Your task to perform on an android device: View the shopping cart on newegg. Add logitech g pro to the cart on newegg, then select checkout. Image 0: 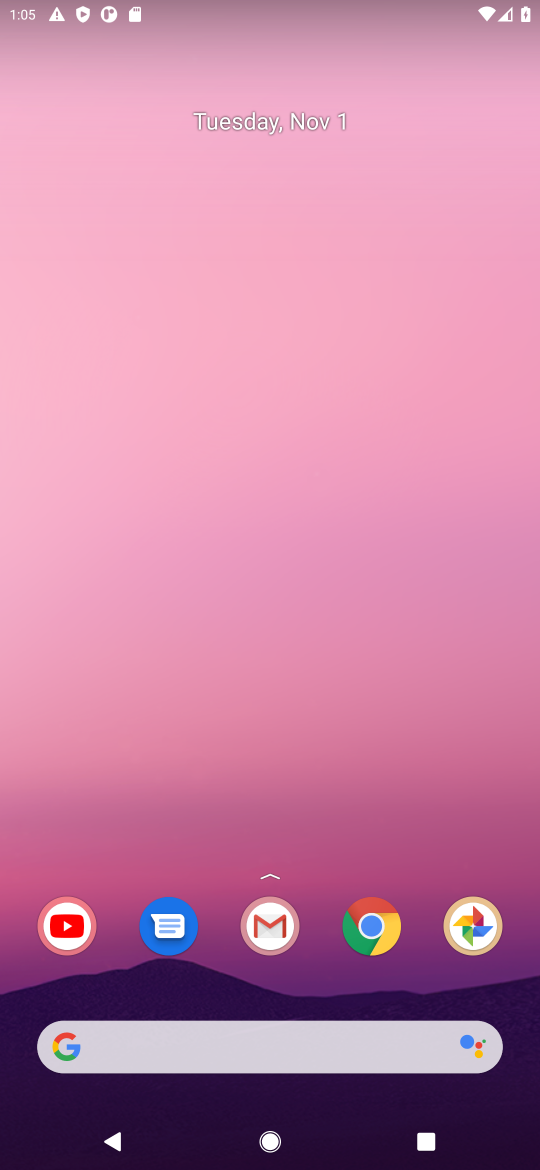
Step 0: click (383, 940)
Your task to perform on an android device: View the shopping cart on newegg. Add logitech g pro to the cart on newegg, then select checkout. Image 1: 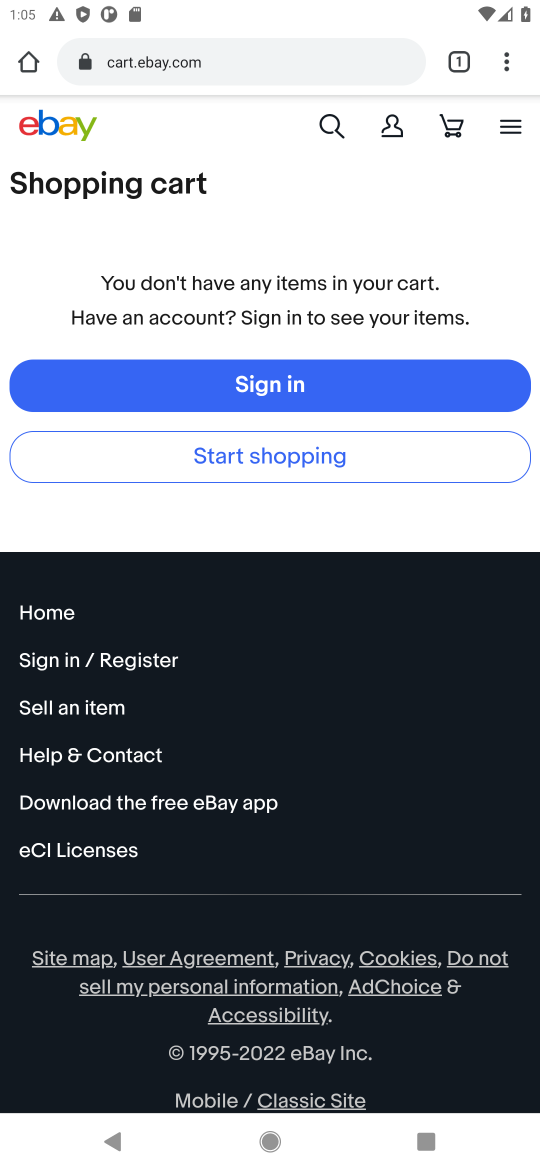
Step 1: click (231, 79)
Your task to perform on an android device: View the shopping cart on newegg. Add logitech g pro to the cart on newegg, then select checkout. Image 2: 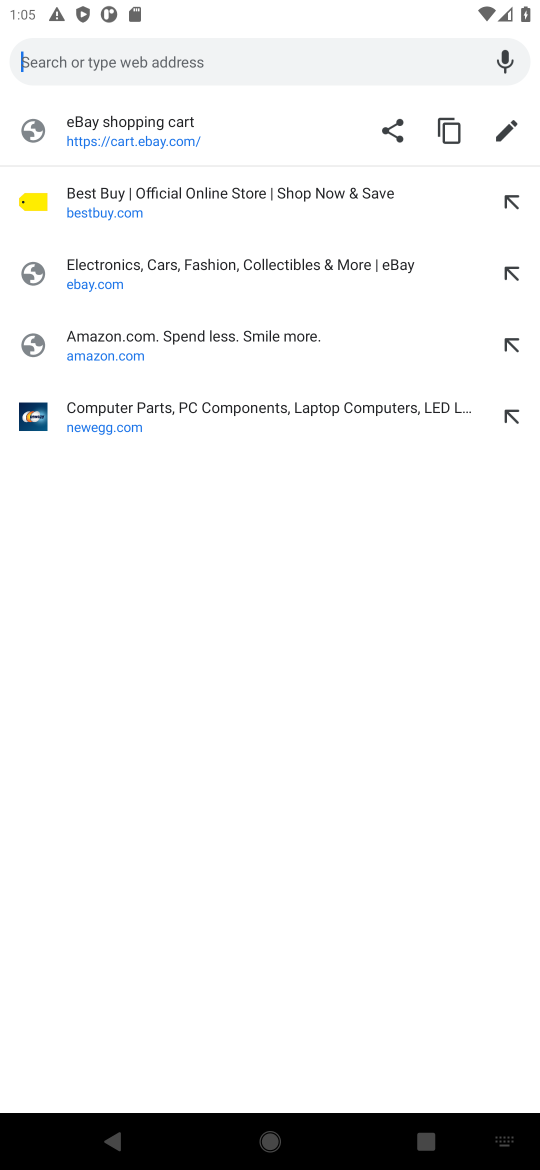
Step 2: type "newegg"
Your task to perform on an android device: View the shopping cart on newegg. Add logitech g pro to the cart on newegg, then select checkout. Image 3: 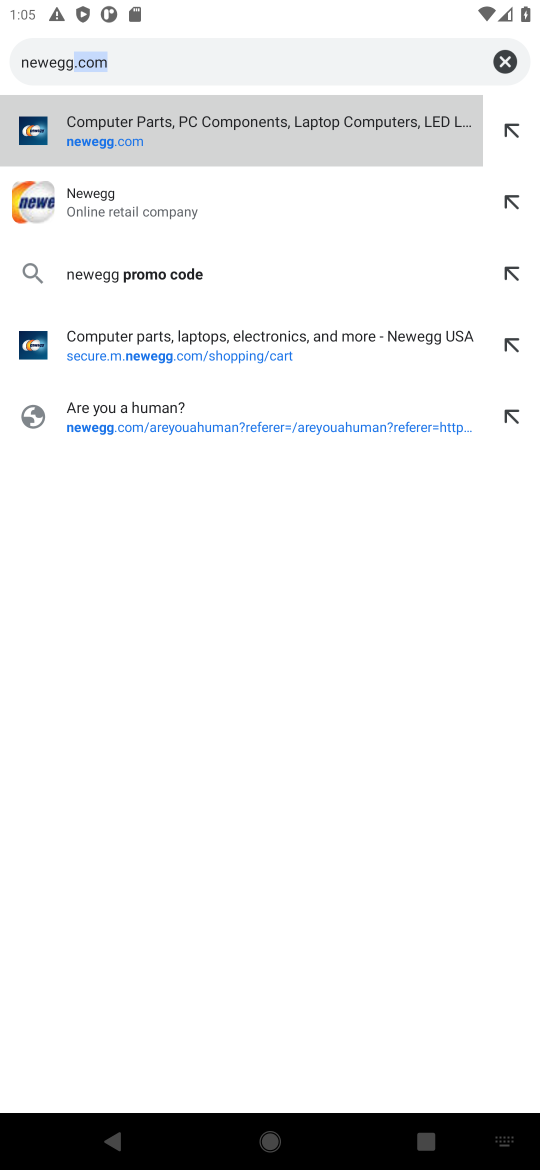
Step 3: press enter
Your task to perform on an android device: View the shopping cart on newegg. Add logitech g pro to the cart on newegg, then select checkout. Image 4: 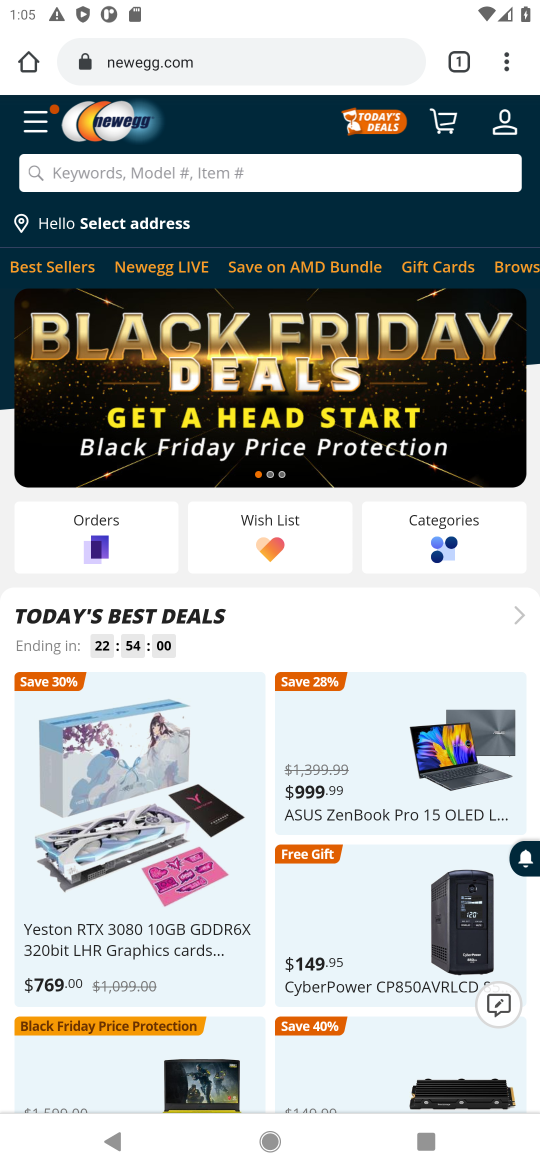
Step 4: click (448, 125)
Your task to perform on an android device: View the shopping cart on newegg. Add logitech g pro to the cart on newegg, then select checkout. Image 5: 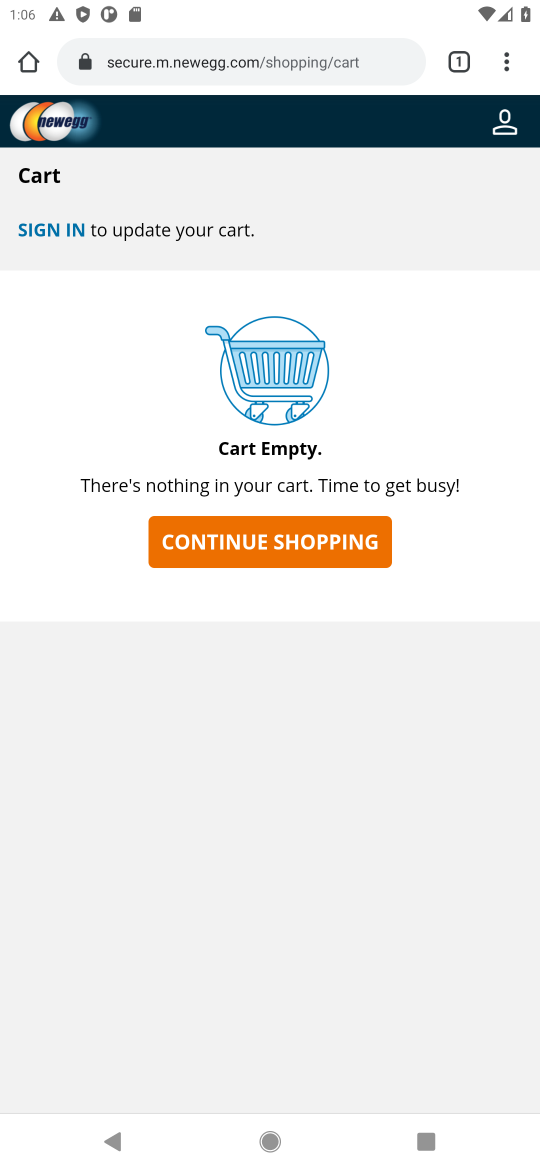
Step 5: click (288, 545)
Your task to perform on an android device: View the shopping cart on newegg. Add logitech g pro to the cart on newegg, then select checkout. Image 6: 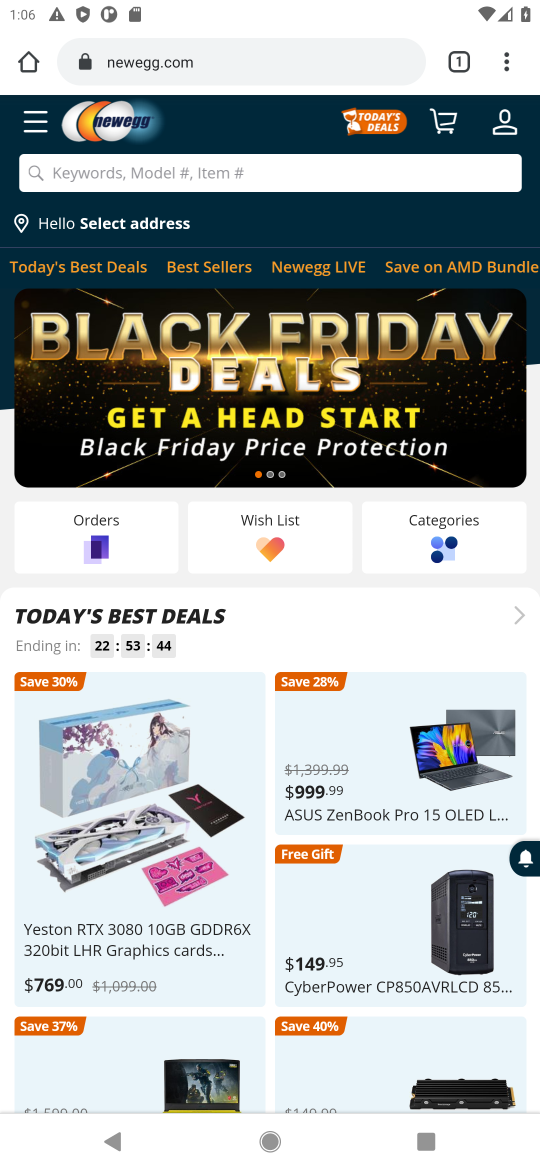
Step 6: click (344, 183)
Your task to perform on an android device: View the shopping cart on newegg. Add logitech g pro to the cart on newegg, then select checkout. Image 7: 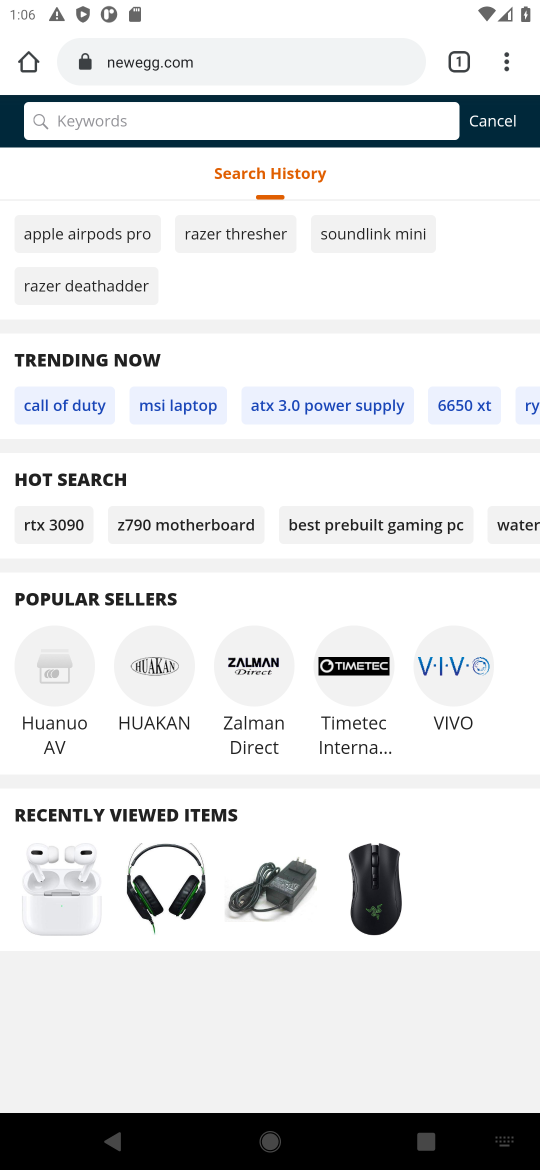
Step 7: type "logitech g pro"
Your task to perform on an android device: View the shopping cart on newegg. Add logitech g pro to the cart on newegg, then select checkout. Image 8: 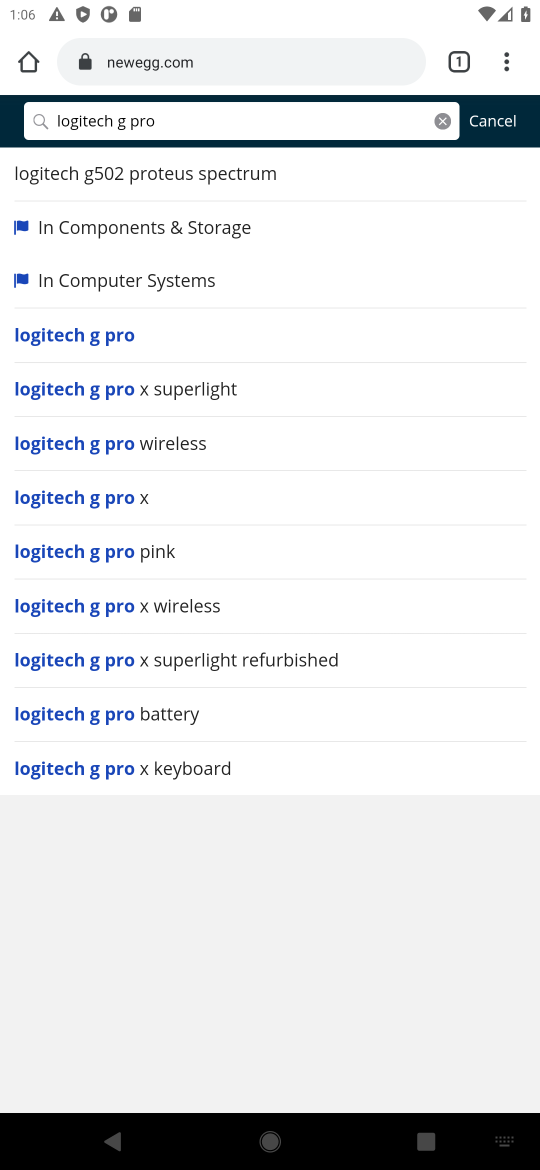
Step 8: press enter
Your task to perform on an android device: View the shopping cart on newegg. Add logitech g pro to the cart on newegg, then select checkout. Image 9: 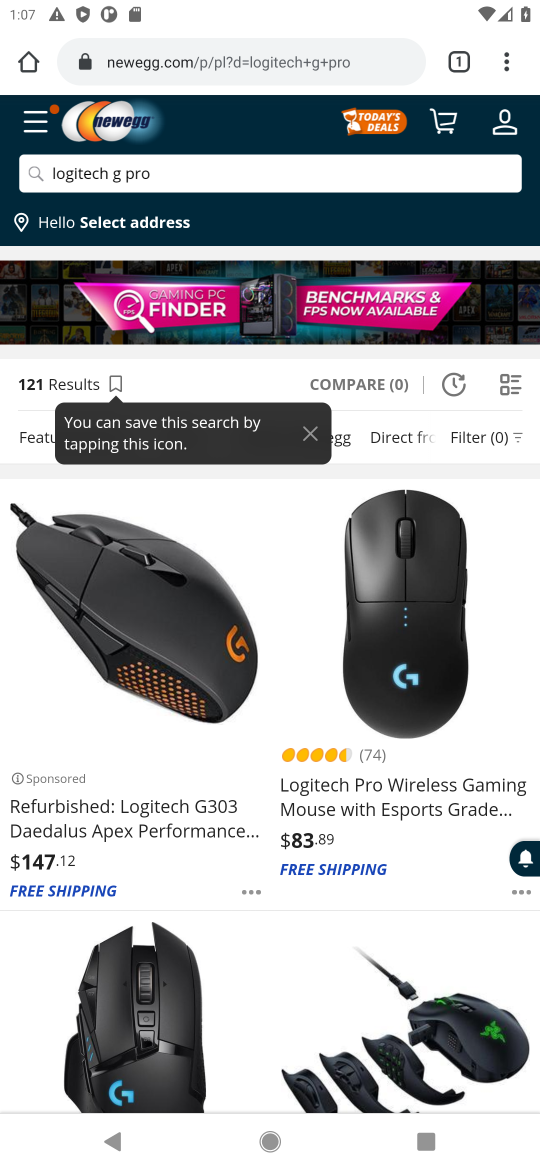
Step 9: drag from (273, 940) to (321, 695)
Your task to perform on an android device: View the shopping cart on newegg. Add logitech g pro to the cart on newegg, then select checkout. Image 10: 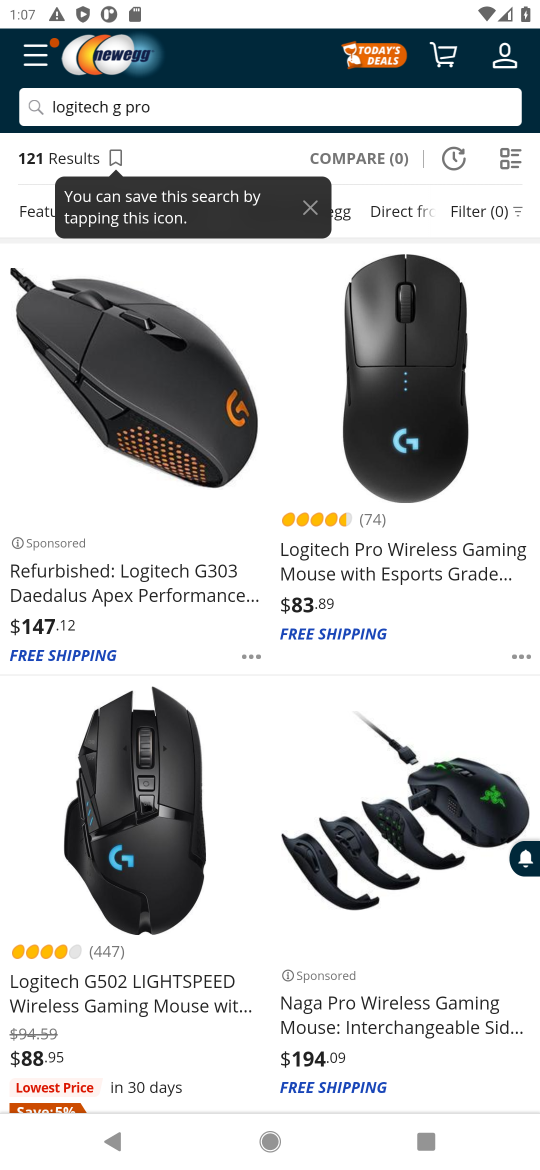
Step 10: drag from (257, 832) to (276, 359)
Your task to perform on an android device: View the shopping cart on newegg. Add logitech g pro to the cart on newegg, then select checkout. Image 11: 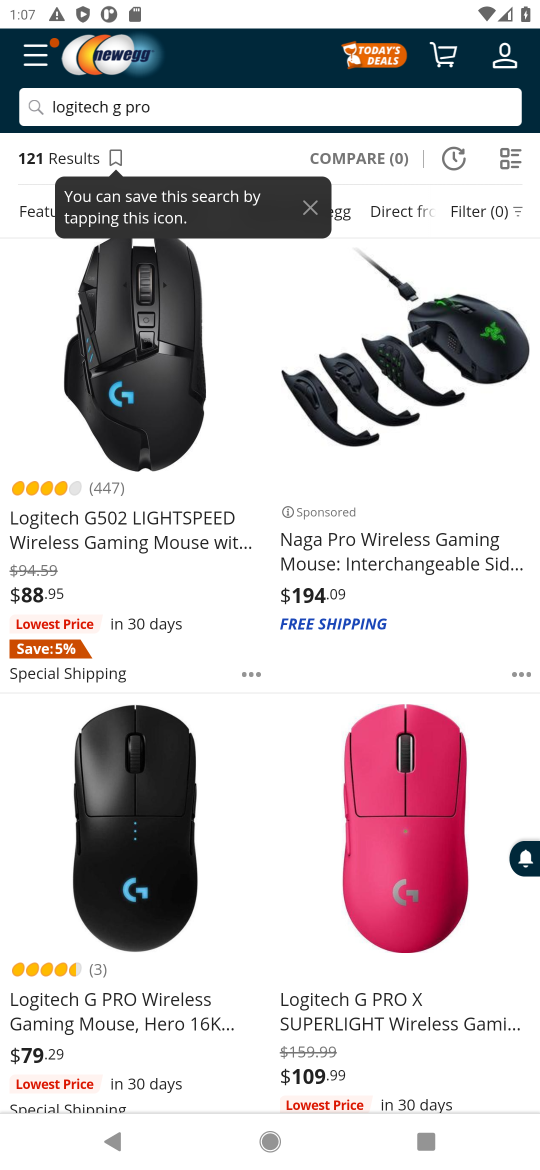
Step 11: click (97, 915)
Your task to perform on an android device: View the shopping cart on newegg. Add logitech g pro to the cart on newegg, then select checkout. Image 12: 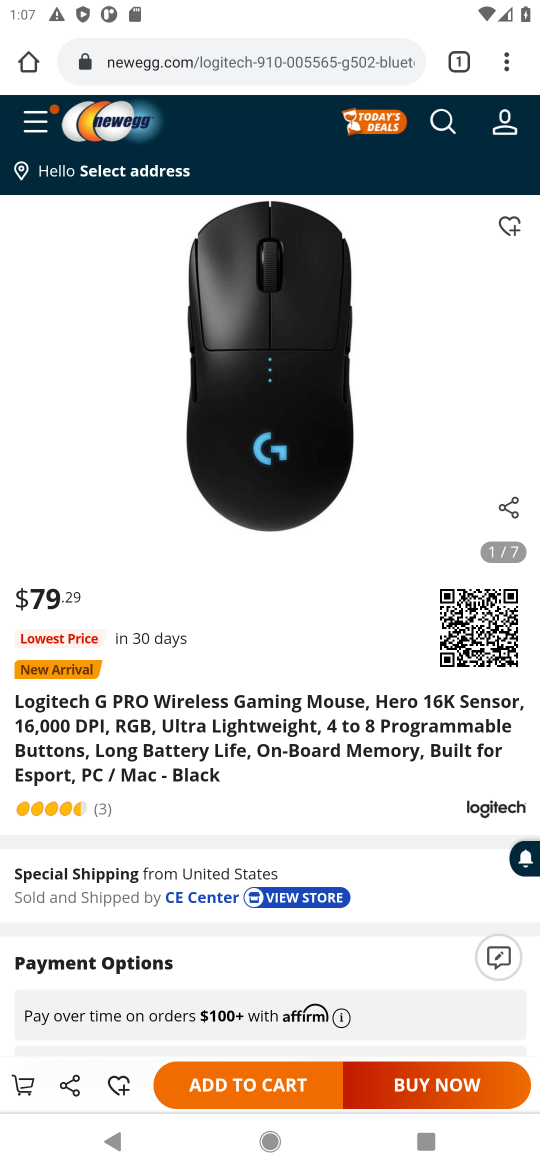
Step 12: click (233, 1087)
Your task to perform on an android device: View the shopping cart on newegg. Add logitech g pro to the cart on newegg, then select checkout. Image 13: 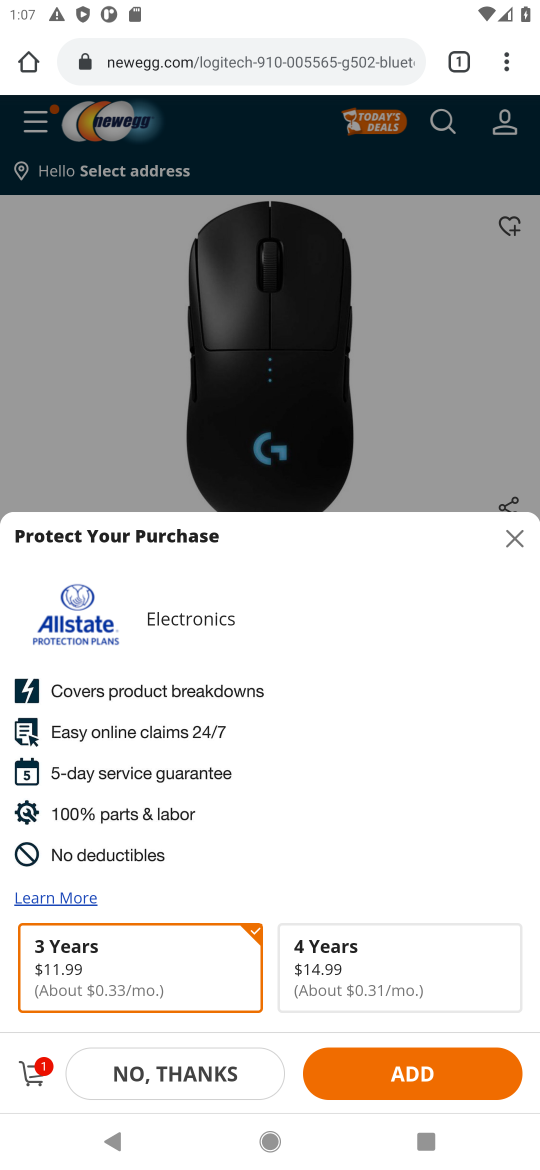
Step 13: click (136, 1078)
Your task to perform on an android device: View the shopping cart on newegg. Add logitech g pro to the cart on newegg, then select checkout. Image 14: 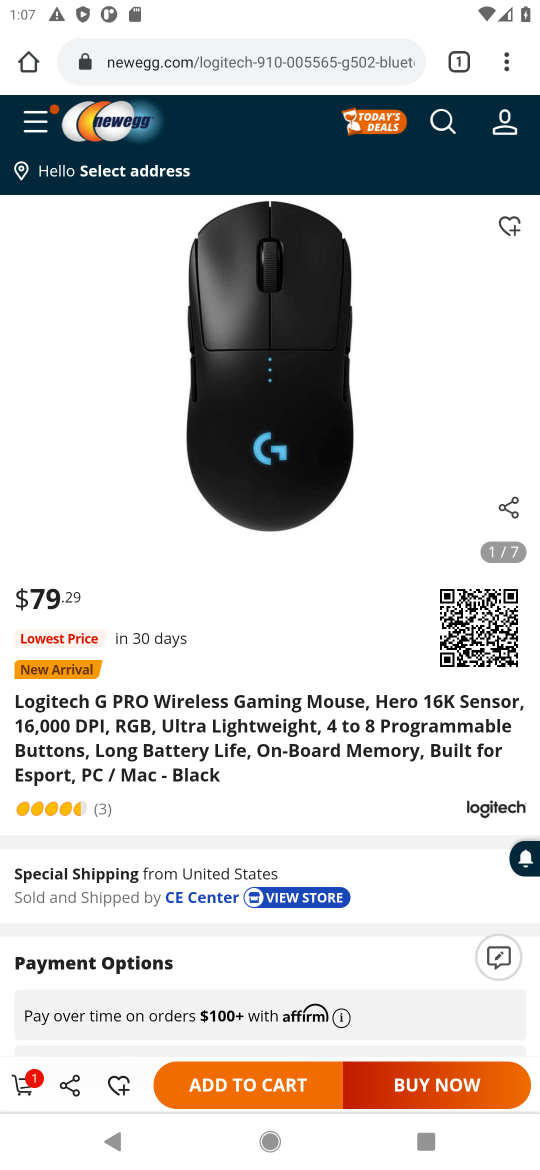
Step 14: click (27, 1086)
Your task to perform on an android device: View the shopping cart on newegg. Add logitech g pro to the cart on newegg, then select checkout. Image 15: 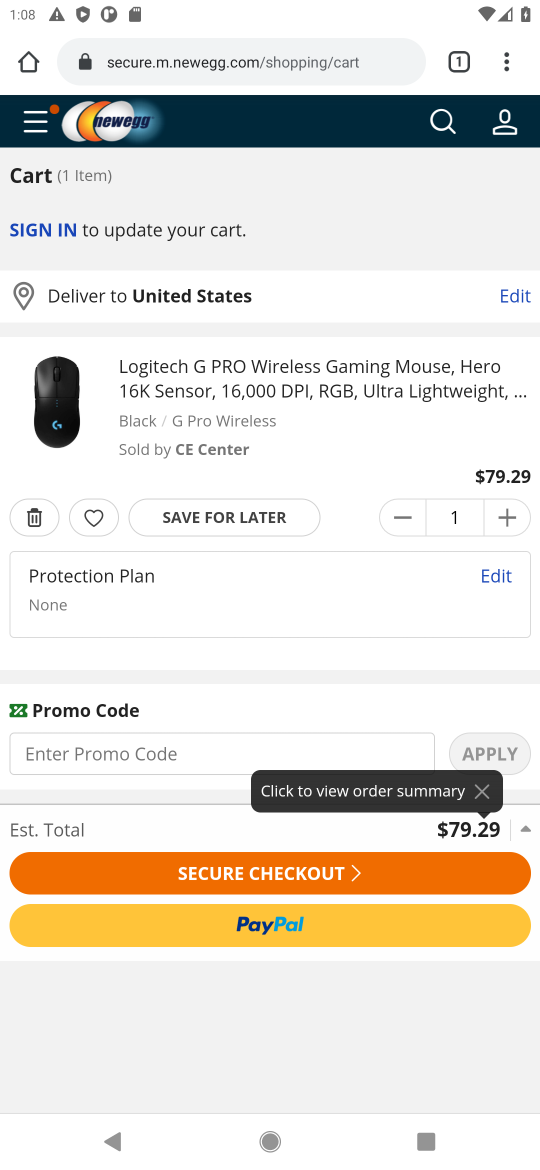
Step 15: click (189, 875)
Your task to perform on an android device: View the shopping cart on newegg. Add logitech g pro to the cart on newegg, then select checkout. Image 16: 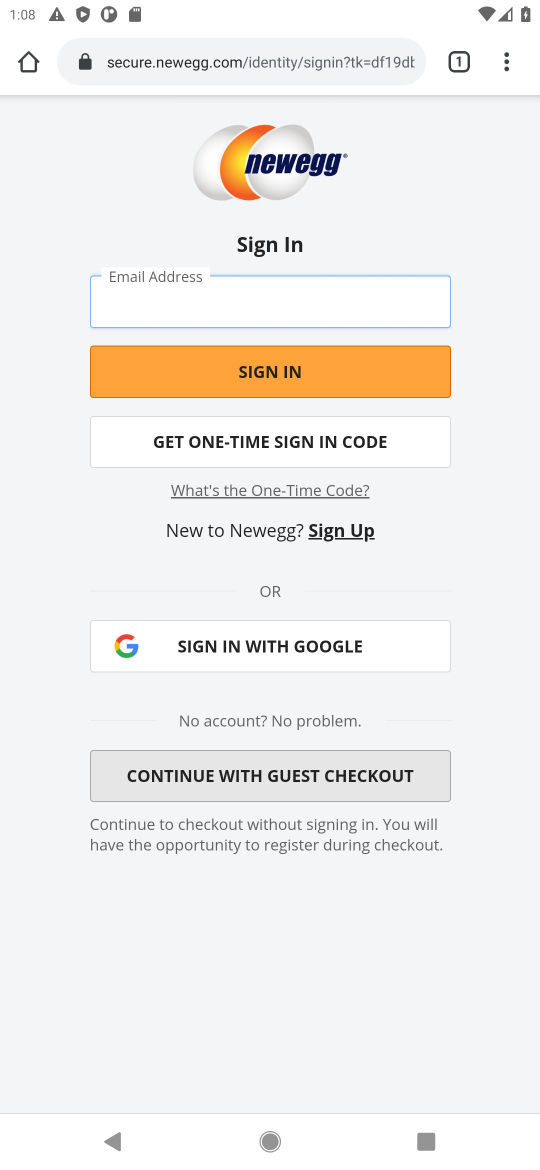
Step 16: task complete